Your task to perform on an android device: Open Maps and search for coffee Image 0: 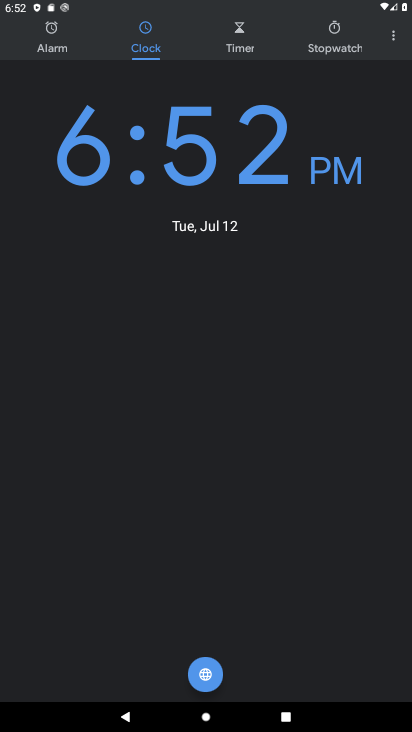
Step 0: press home button
Your task to perform on an android device: Open Maps and search for coffee Image 1: 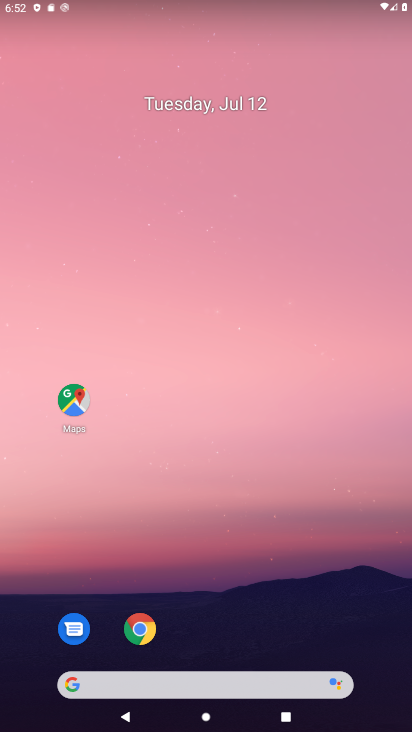
Step 1: click (68, 389)
Your task to perform on an android device: Open Maps and search for coffee Image 2: 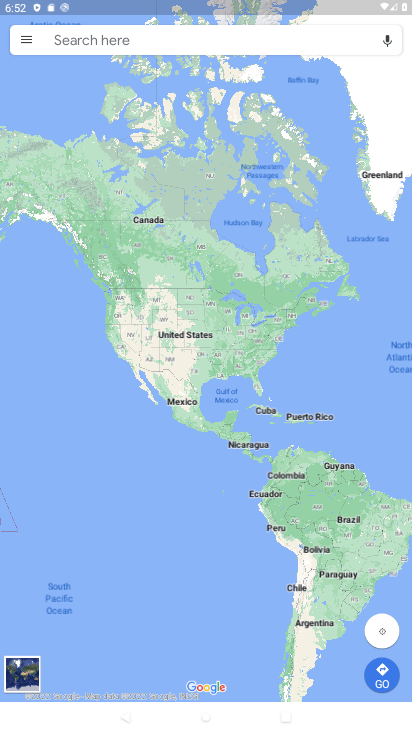
Step 2: click (130, 38)
Your task to perform on an android device: Open Maps and search for coffee Image 3: 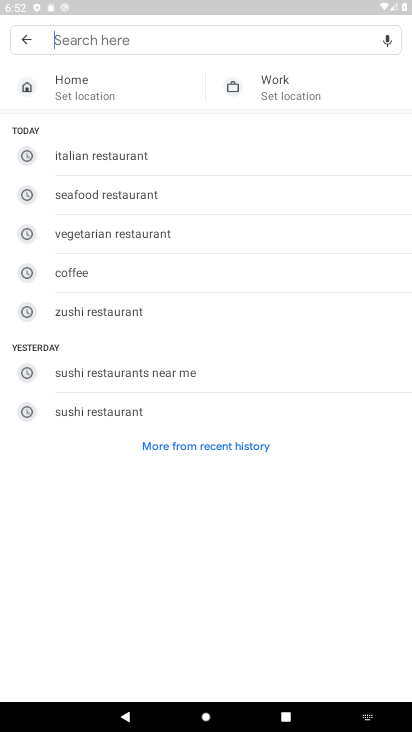
Step 3: click (122, 274)
Your task to perform on an android device: Open Maps and search for coffee Image 4: 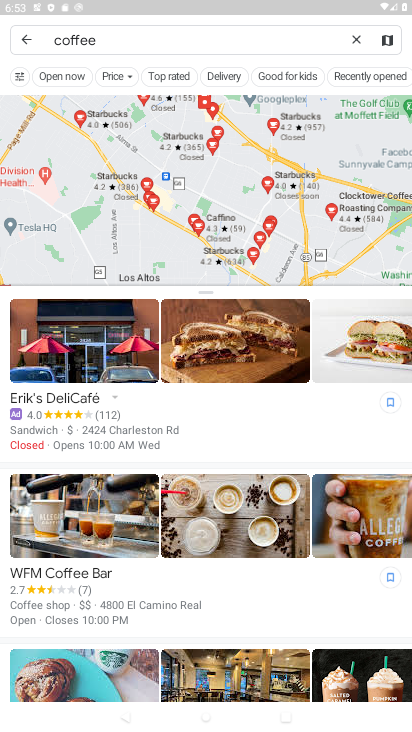
Step 4: task complete